Your task to perform on an android device: Search for the best rated headphones on Walmart Image 0: 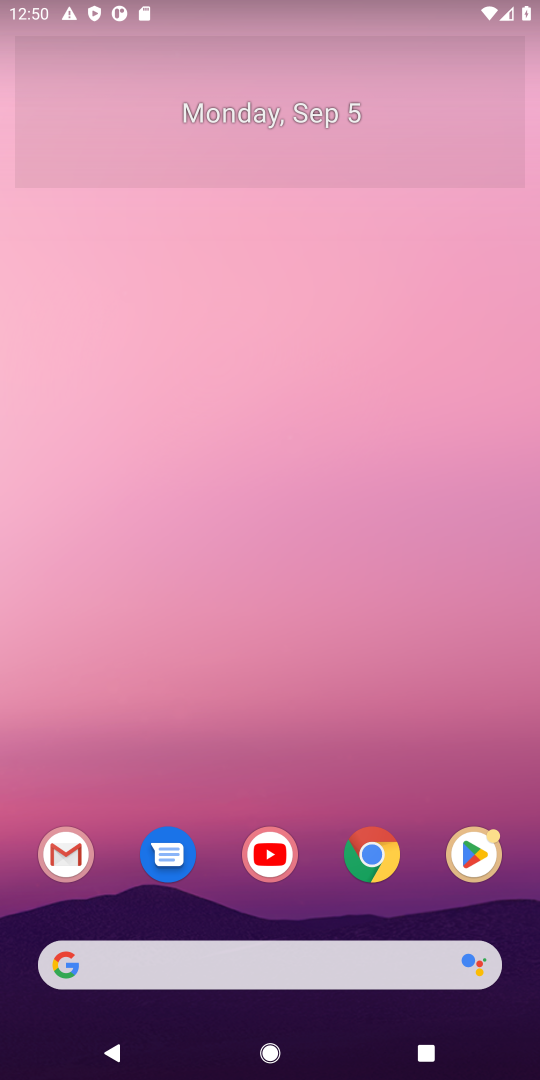
Step 0: press home button
Your task to perform on an android device: Search for the best rated headphones on Walmart Image 1: 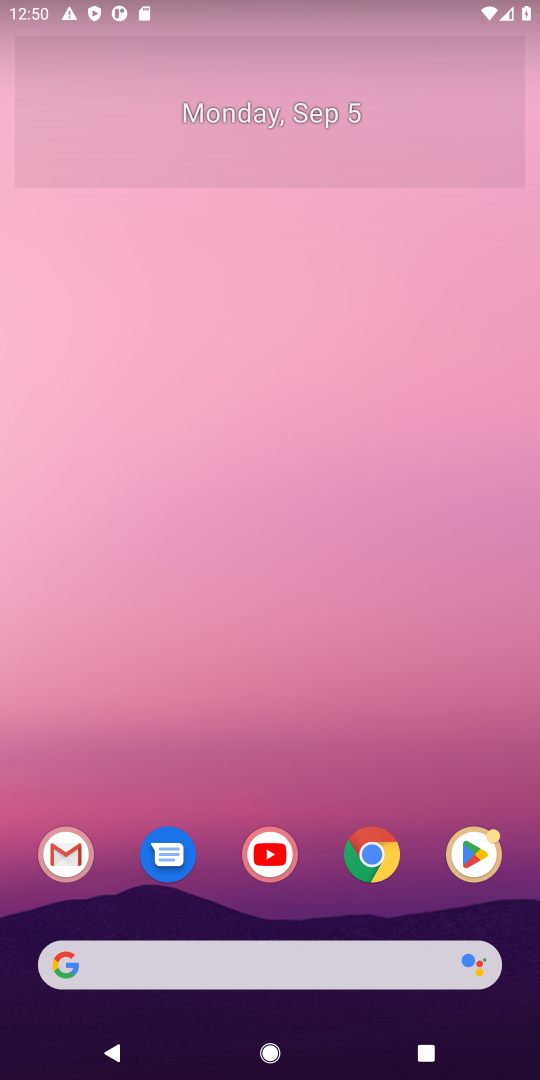
Step 1: click (369, 957)
Your task to perform on an android device: Search for the best rated headphones on Walmart Image 2: 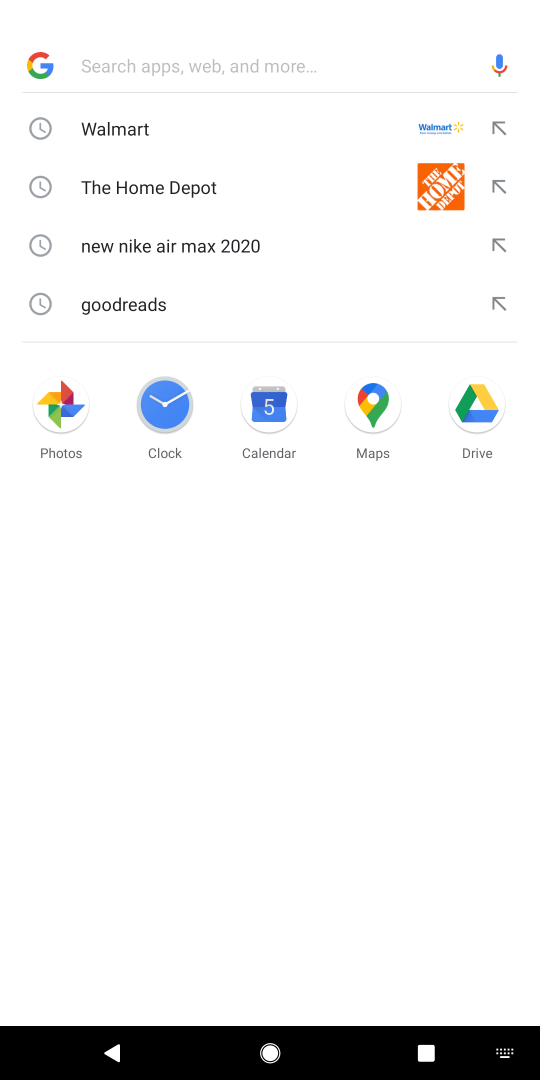
Step 2: press enter
Your task to perform on an android device: Search for the best rated headphones on Walmart Image 3: 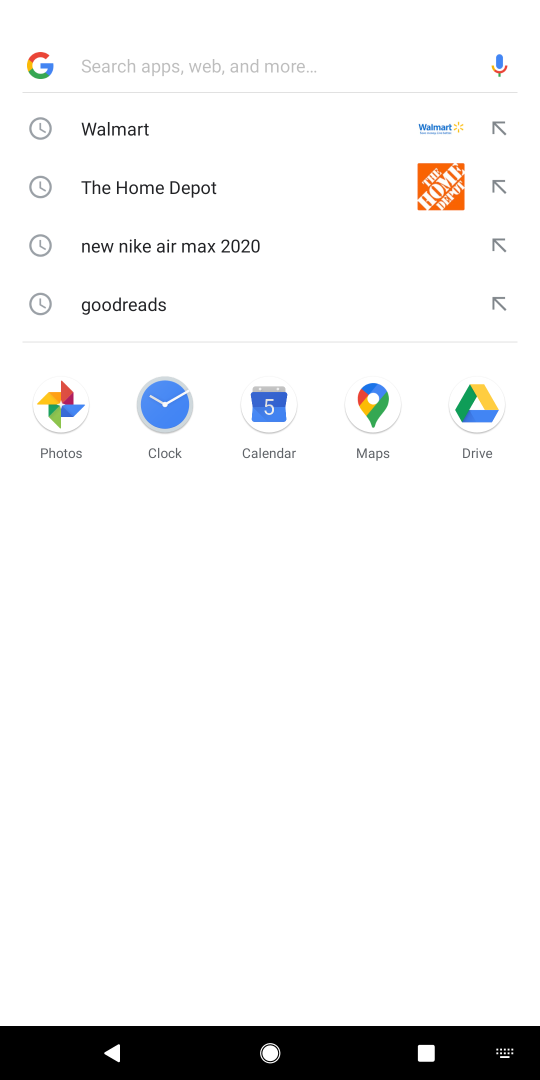
Step 3: type "walmart"
Your task to perform on an android device: Search for the best rated headphones on Walmart Image 4: 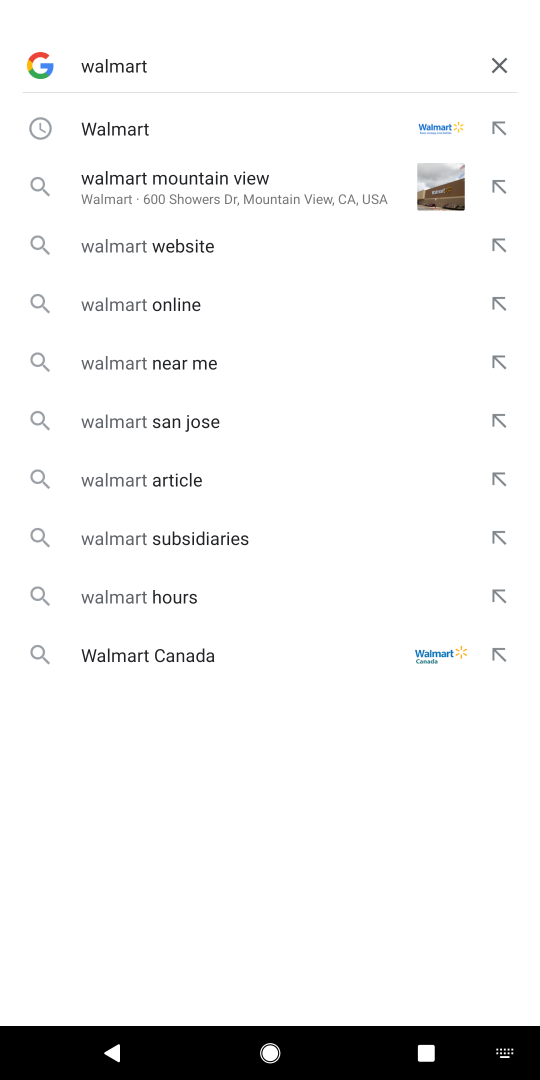
Step 4: click (149, 131)
Your task to perform on an android device: Search for the best rated headphones on Walmart Image 5: 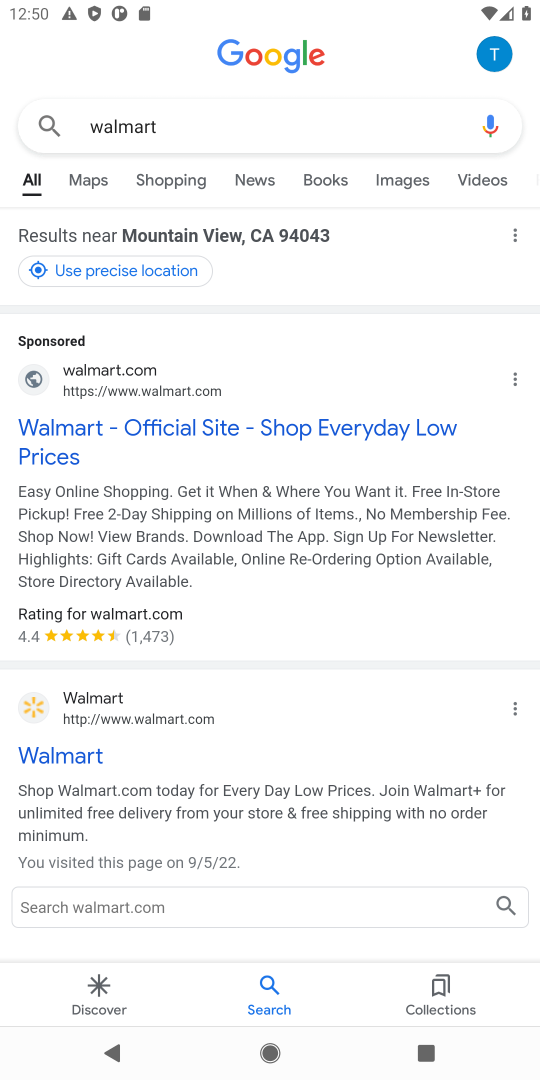
Step 5: click (111, 428)
Your task to perform on an android device: Search for the best rated headphones on Walmart Image 6: 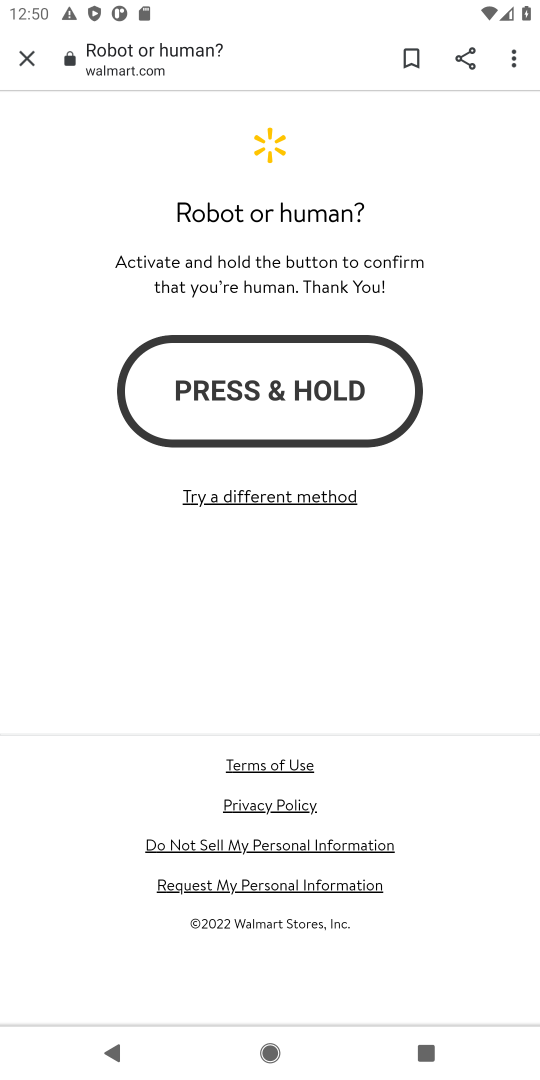
Step 6: task complete